Your task to perform on an android device: Check the weather Image 0: 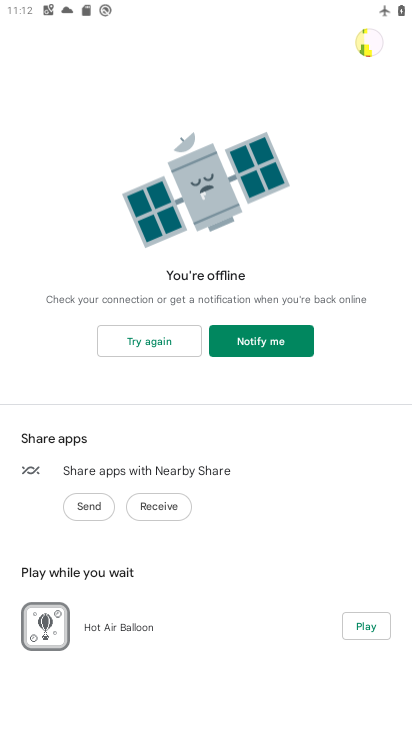
Step 0: press home button
Your task to perform on an android device: Check the weather Image 1: 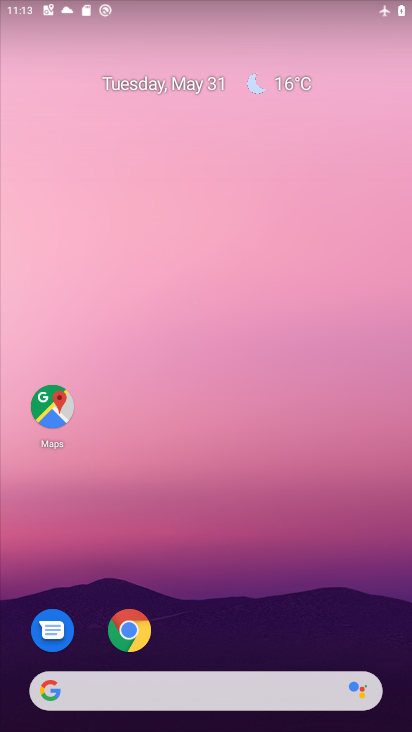
Step 1: click (304, 75)
Your task to perform on an android device: Check the weather Image 2: 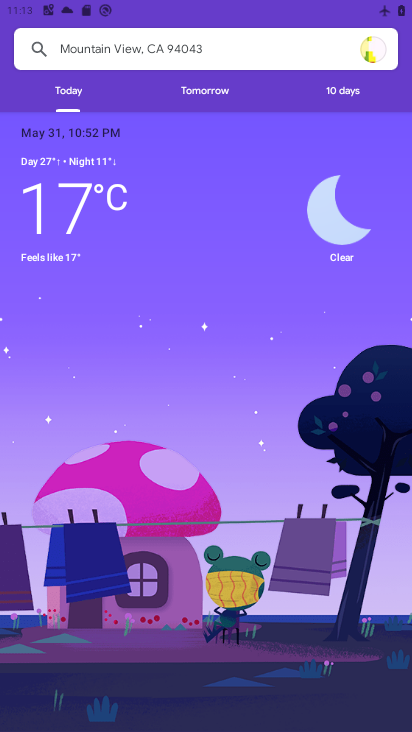
Step 2: task complete